Your task to perform on an android device: Open network settings Image 0: 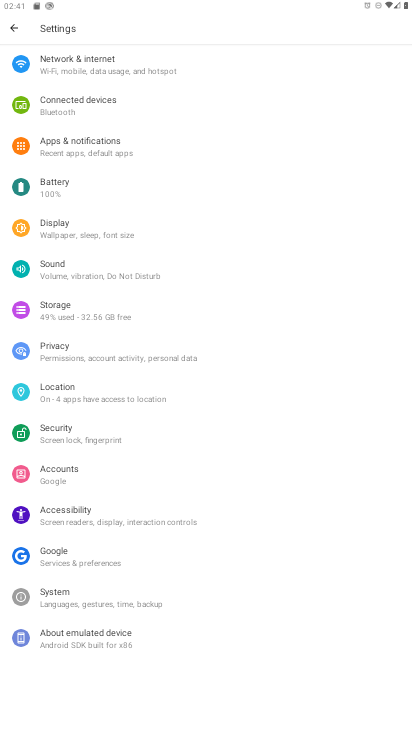
Step 0: click (61, 39)
Your task to perform on an android device: Open network settings Image 1: 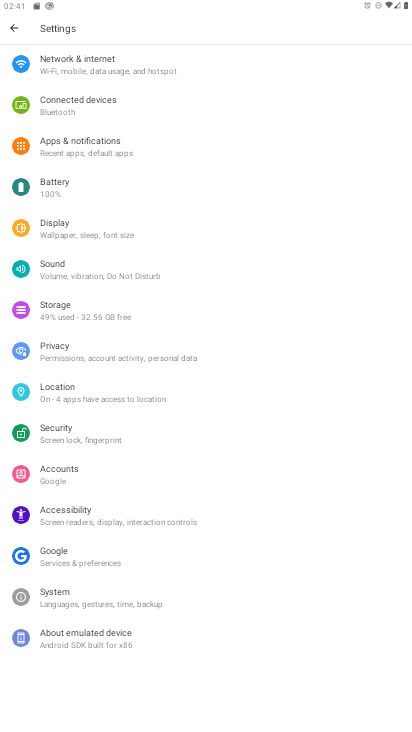
Step 1: click (67, 59)
Your task to perform on an android device: Open network settings Image 2: 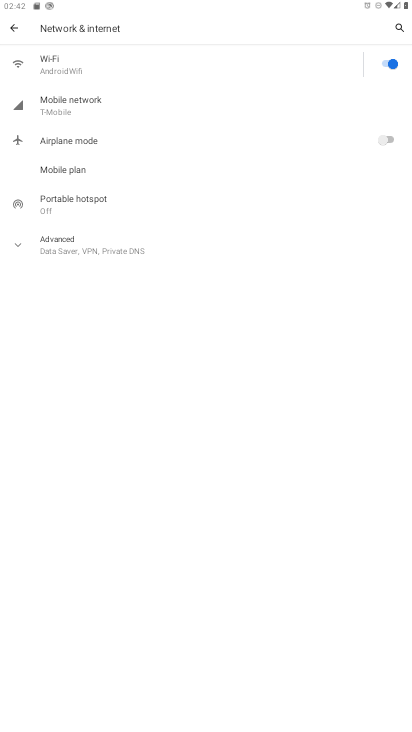
Step 2: task complete